Your task to perform on an android device: Show me productivity apps on the Play Store Image 0: 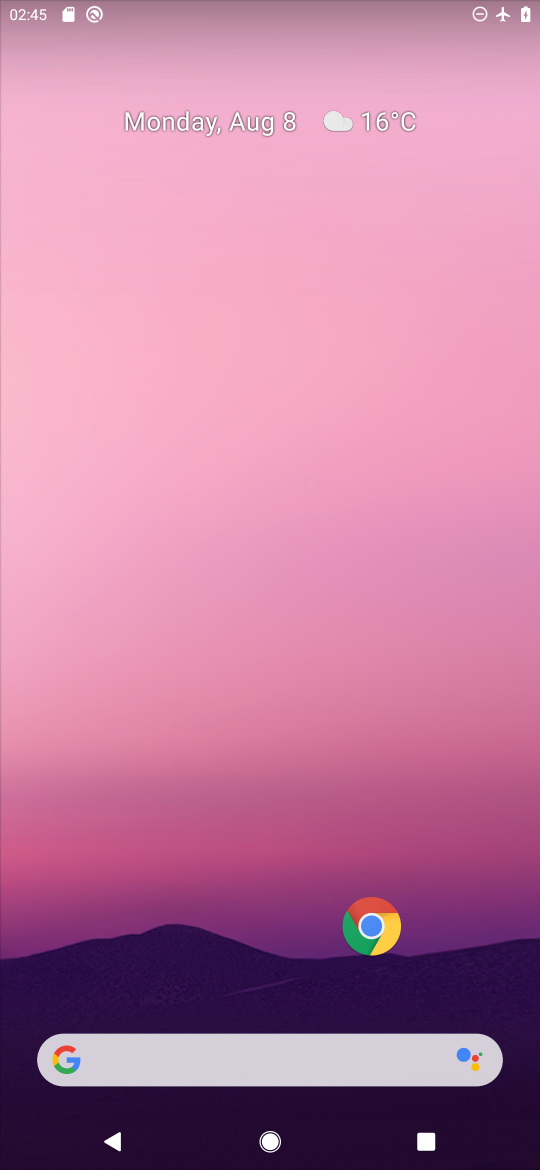
Step 0: drag from (276, 1015) to (368, 243)
Your task to perform on an android device: Show me productivity apps on the Play Store Image 1: 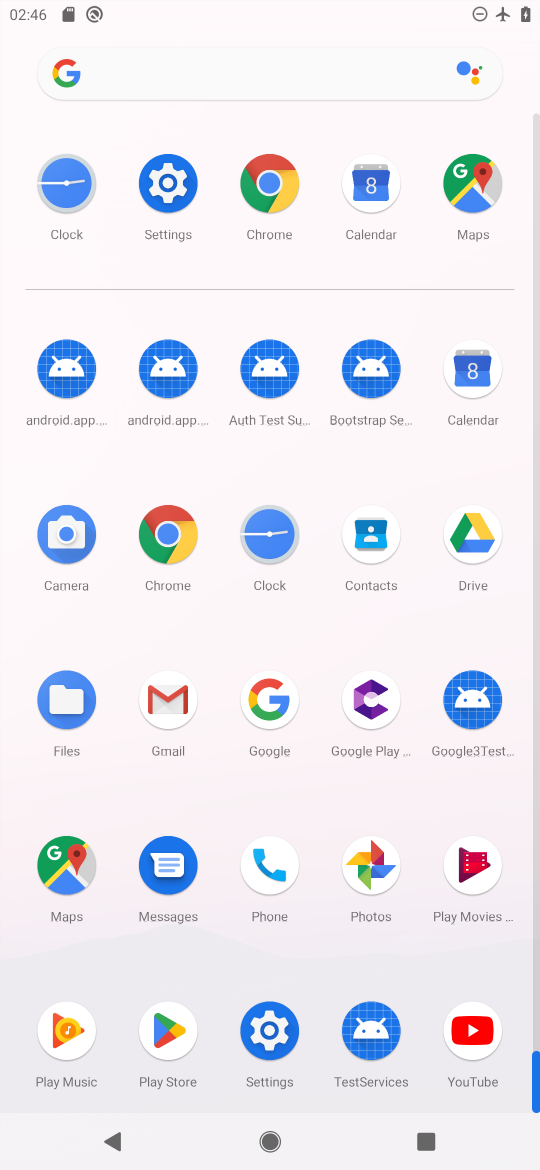
Step 1: click (174, 1022)
Your task to perform on an android device: Show me productivity apps on the Play Store Image 2: 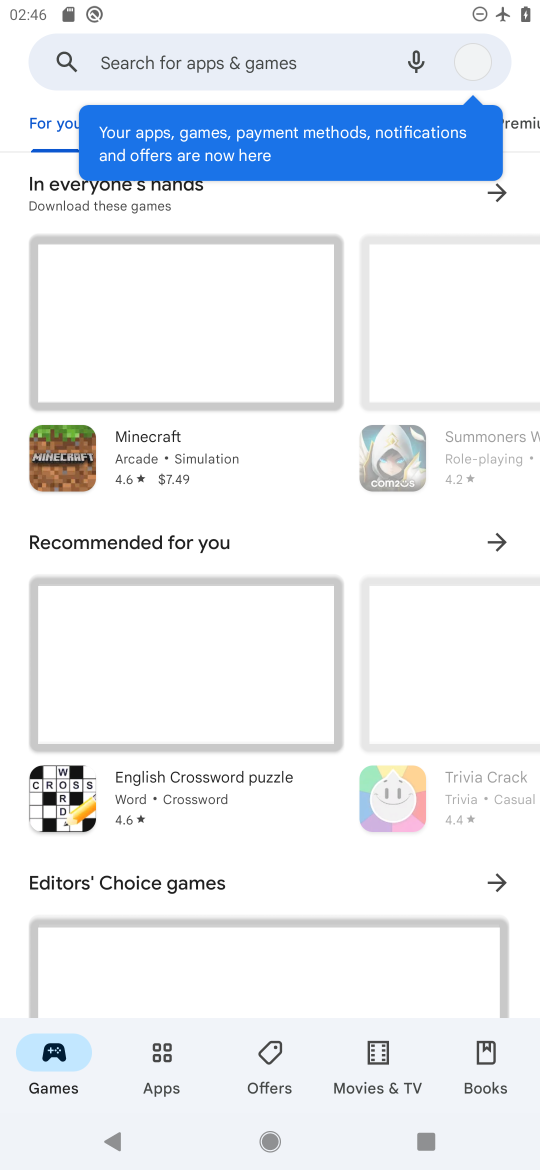
Step 2: click (172, 1055)
Your task to perform on an android device: Show me productivity apps on the Play Store Image 3: 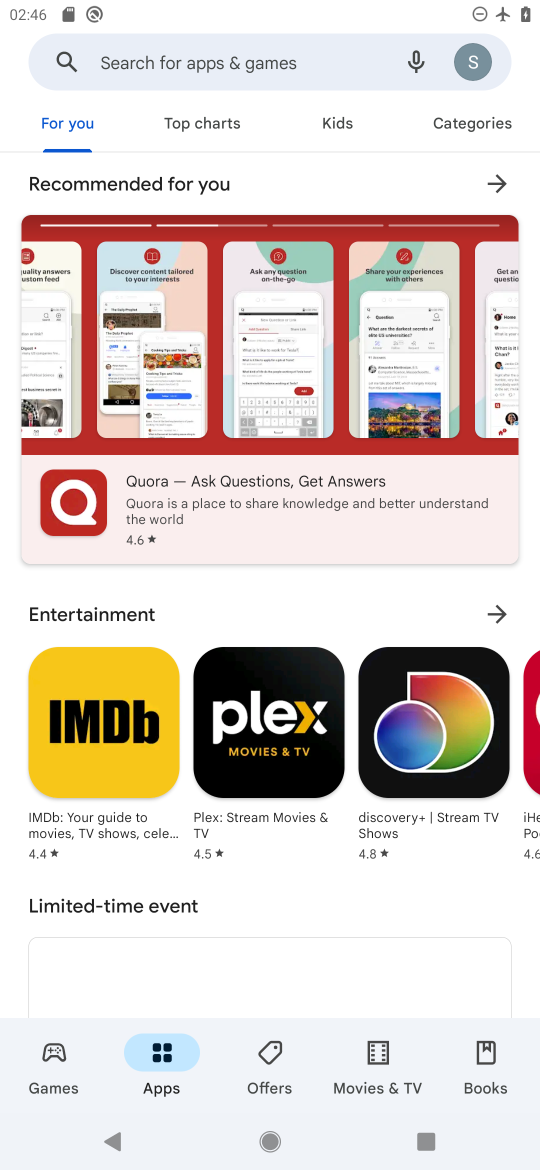
Step 3: task complete